Your task to perform on an android device: manage bookmarks in the chrome app Image 0: 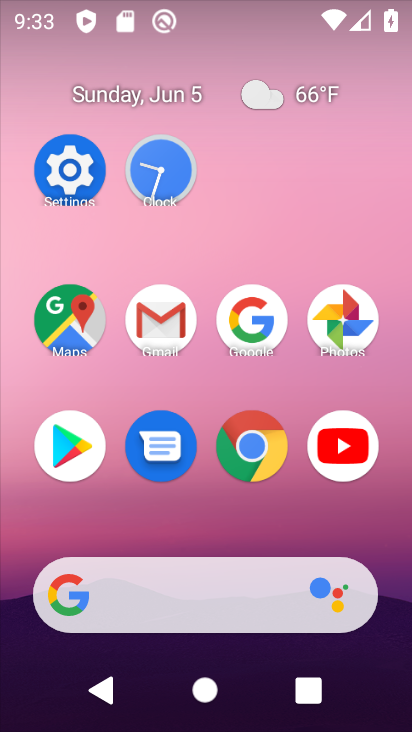
Step 0: click (264, 448)
Your task to perform on an android device: manage bookmarks in the chrome app Image 1: 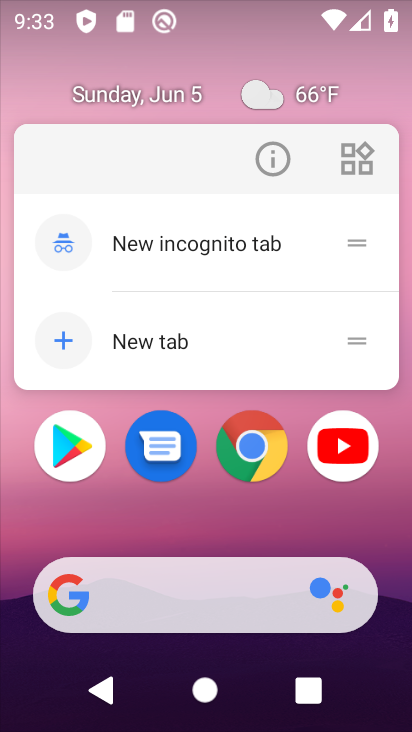
Step 1: click (264, 448)
Your task to perform on an android device: manage bookmarks in the chrome app Image 2: 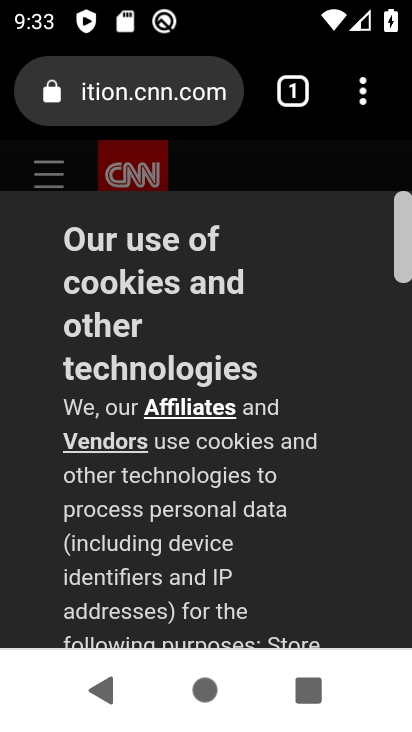
Step 2: click (376, 86)
Your task to perform on an android device: manage bookmarks in the chrome app Image 3: 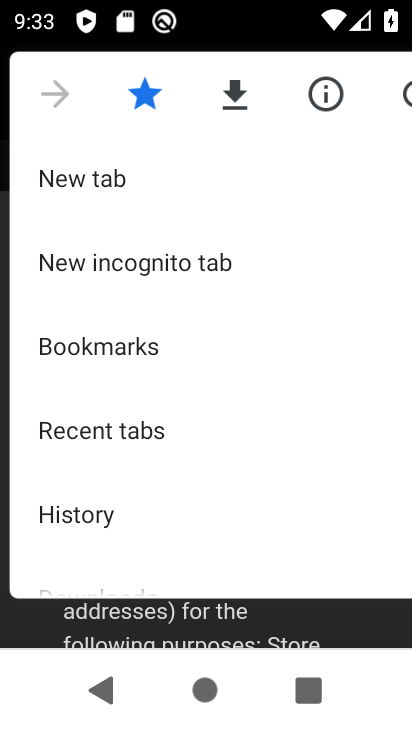
Step 3: click (162, 340)
Your task to perform on an android device: manage bookmarks in the chrome app Image 4: 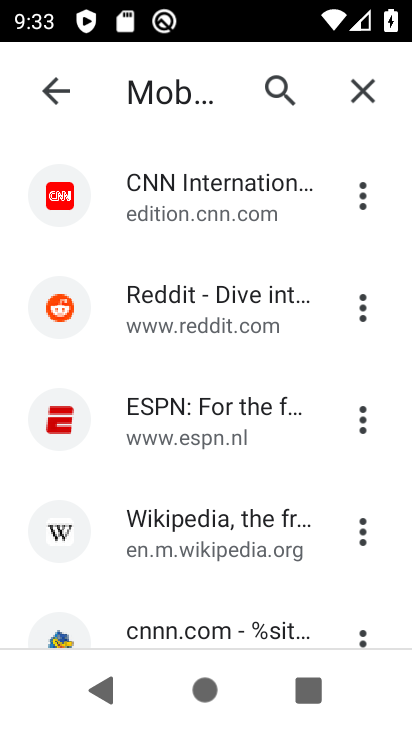
Step 4: click (384, 215)
Your task to perform on an android device: manage bookmarks in the chrome app Image 5: 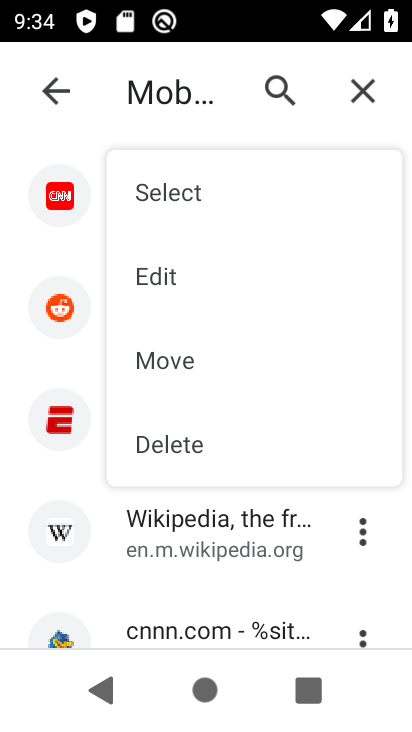
Step 5: click (159, 435)
Your task to perform on an android device: manage bookmarks in the chrome app Image 6: 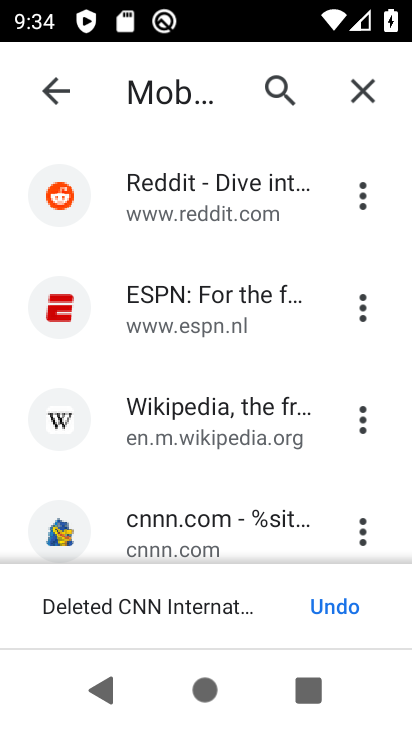
Step 6: task complete